Your task to perform on an android device: Open internet settings Image 0: 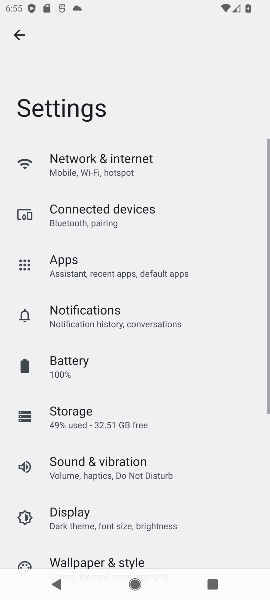
Step 0: press home button
Your task to perform on an android device: Open internet settings Image 1: 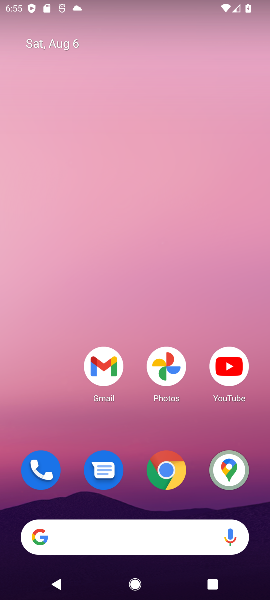
Step 1: drag from (125, 470) to (168, 143)
Your task to perform on an android device: Open internet settings Image 2: 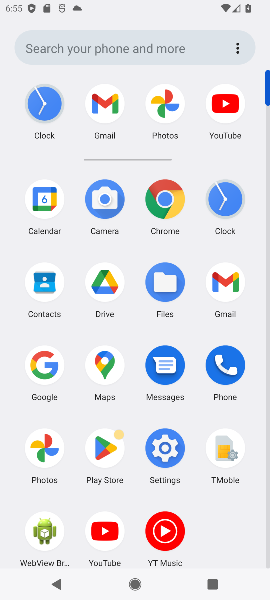
Step 2: click (160, 426)
Your task to perform on an android device: Open internet settings Image 3: 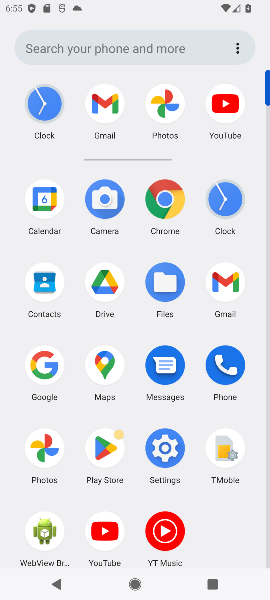
Step 3: click (166, 441)
Your task to perform on an android device: Open internet settings Image 4: 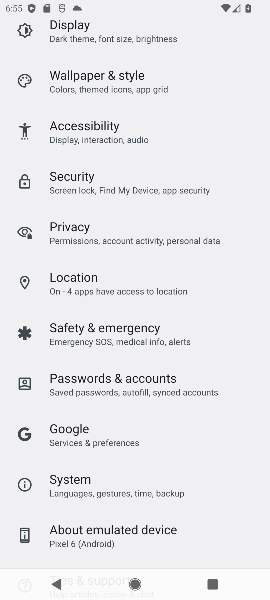
Step 4: drag from (79, 80) to (64, 591)
Your task to perform on an android device: Open internet settings Image 5: 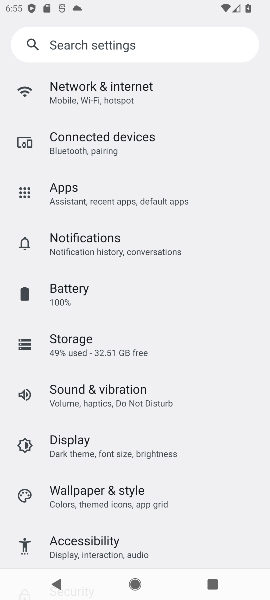
Step 5: click (85, 81)
Your task to perform on an android device: Open internet settings Image 6: 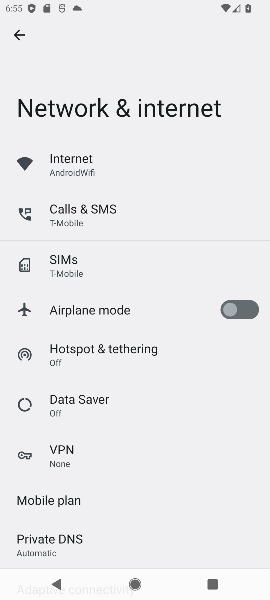
Step 6: task complete